Your task to perform on an android device: Is it going to rain tomorrow? Image 0: 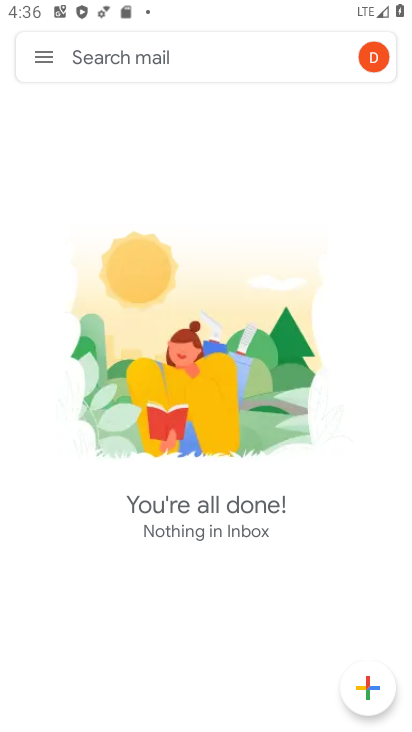
Step 0: press home button
Your task to perform on an android device: Is it going to rain tomorrow? Image 1: 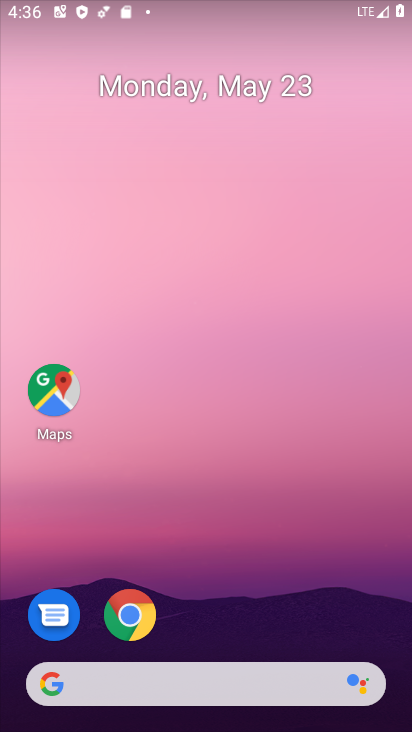
Step 1: drag from (290, 553) to (309, 78)
Your task to perform on an android device: Is it going to rain tomorrow? Image 2: 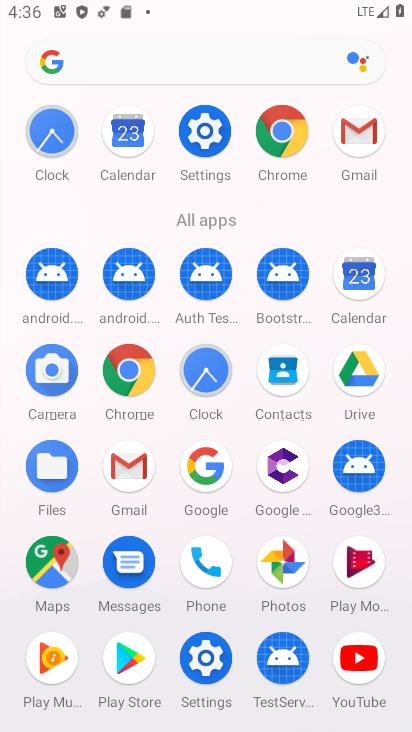
Step 2: click (126, 380)
Your task to perform on an android device: Is it going to rain tomorrow? Image 3: 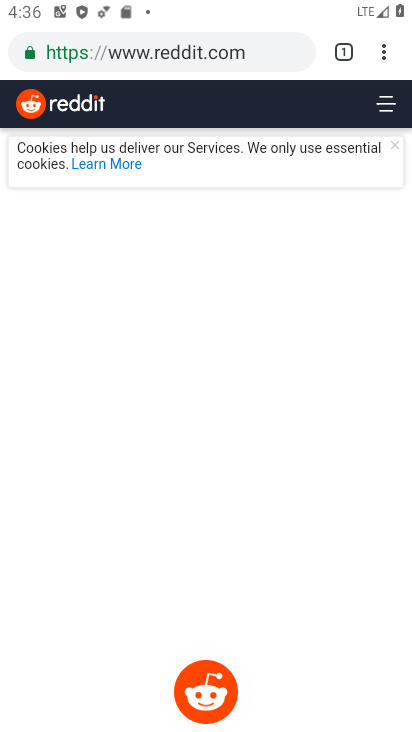
Step 3: click (233, 50)
Your task to perform on an android device: Is it going to rain tomorrow? Image 4: 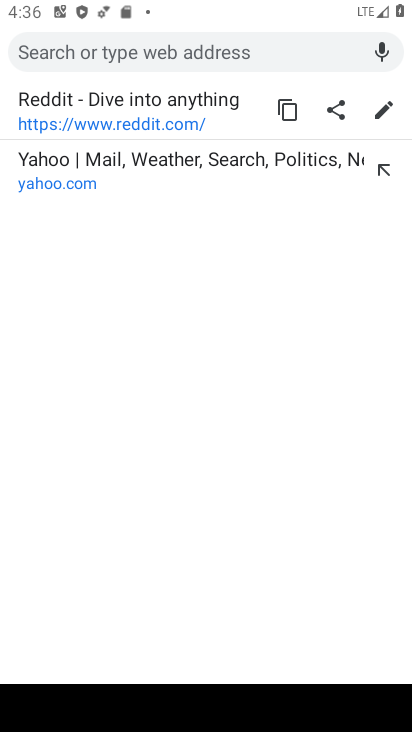
Step 4: type "Is it going to rain tomorrow?"
Your task to perform on an android device: Is it going to rain tomorrow? Image 5: 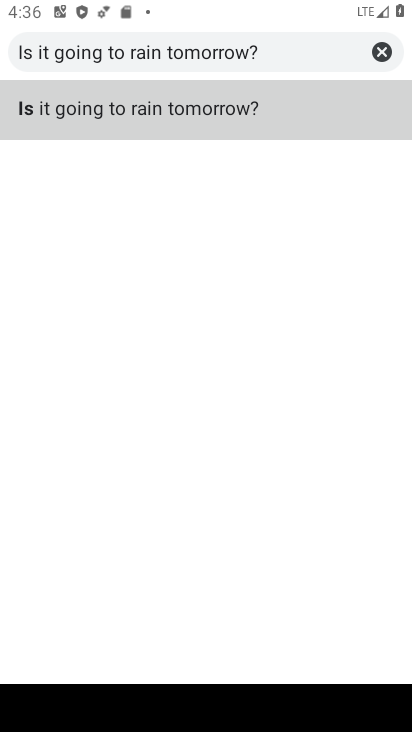
Step 5: click (169, 106)
Your task to perform on an android device: Is it going to rain tomorrow? Image 6: 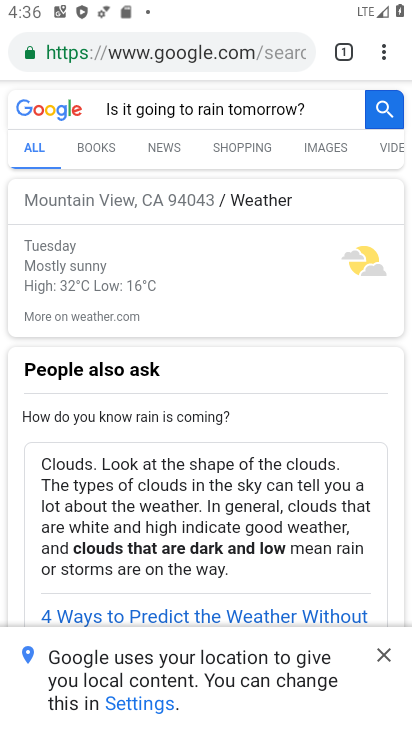
Step 6: task complete